Your task to perform on an android device: create a new album in the google photos Image 0: 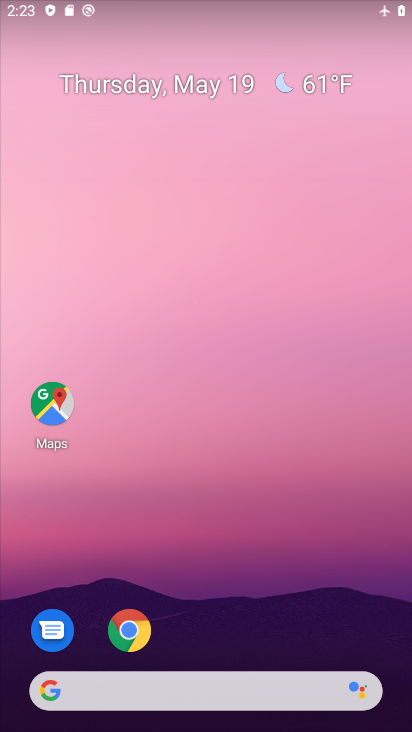
Step 0: drag from (331, 600) to (162, 41)
Your task to perform on an android device: create a new album in the google photos Image 1: 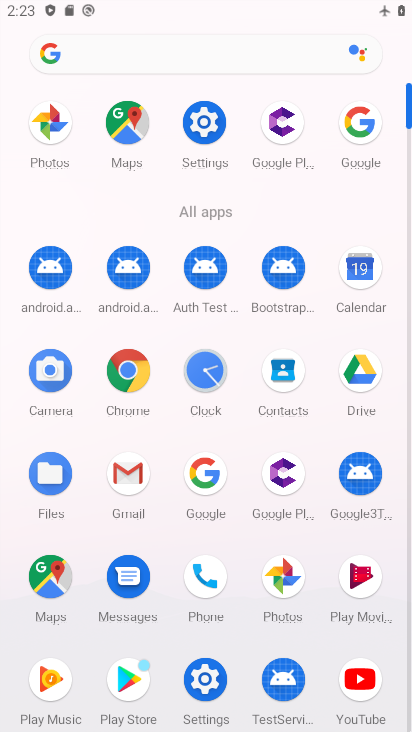
Step 1: click (291, 583)
Your task to perform on an android device: create a new album in the google photos Image 2: 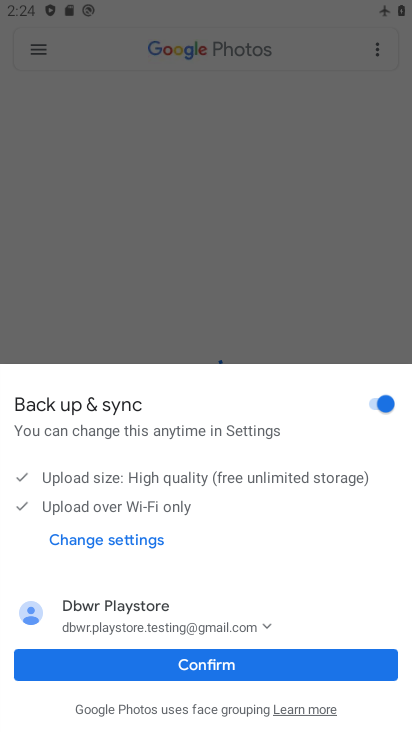
Step 2: click (234, 670)
Your task to perform on an android device: create a new album in the google photos Image 3: 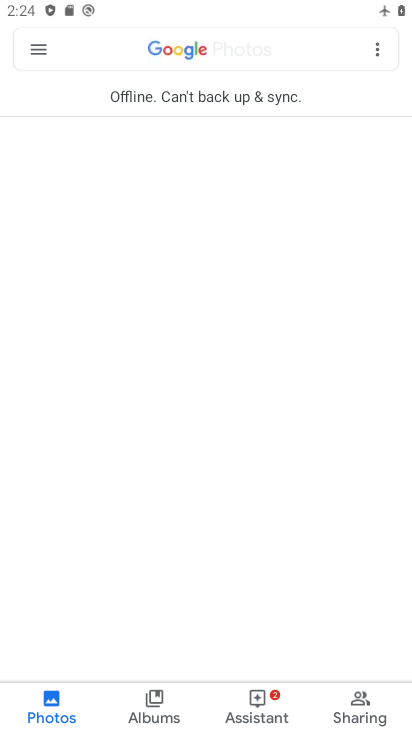
Step 3: click (154, 713)
Your task to perform on an android device: create a new album in the google photos Image 4: 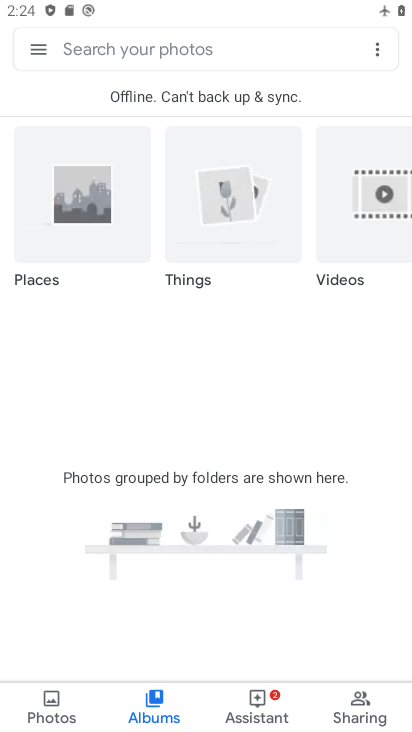
Step 4: drag from (228, 469) to (204, 205)
Your task to perform on an android device: create a new album in the google photos Image 5: 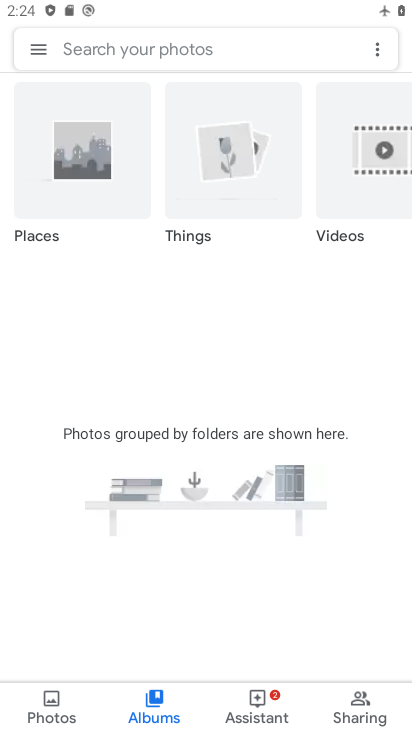
Step 5: click (174, 543)
Your task to perform on an android device: create a new album in the google photos Image 6: 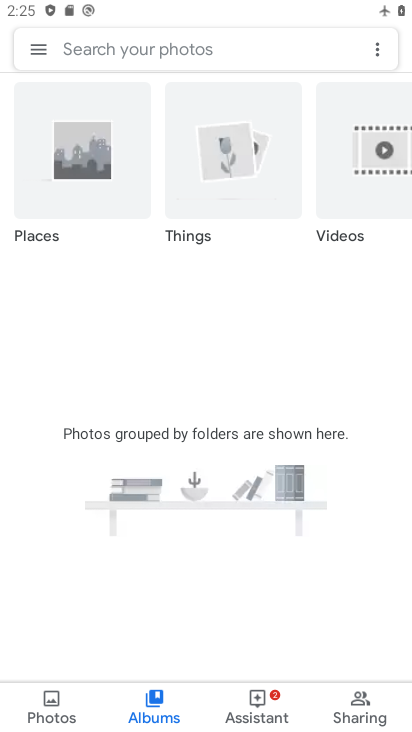
Step 6: task complete